Your task to perform on an android device: Empty the shopping cart on walmart. Image 0: 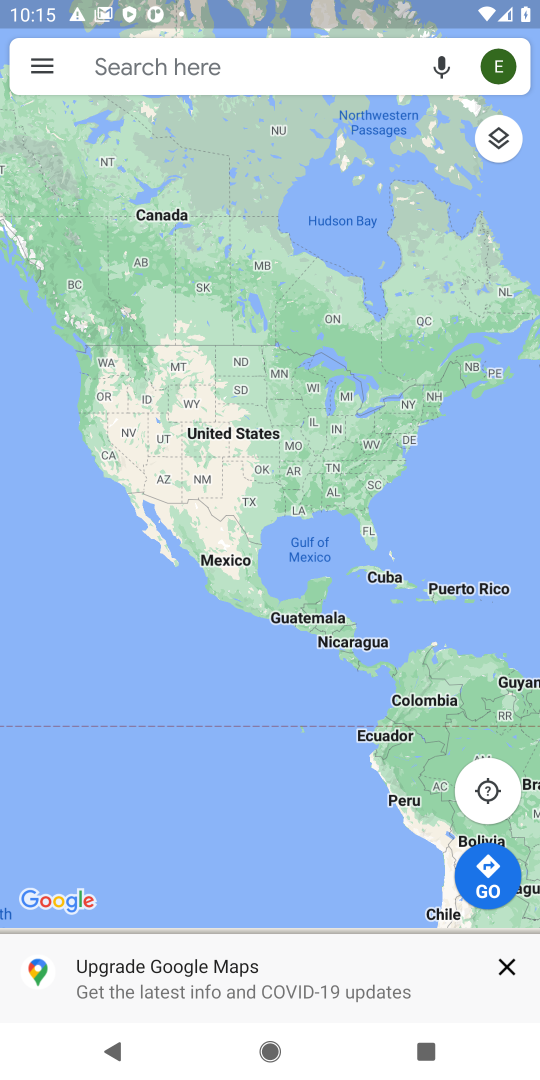
Step 0: press home button
Your task to perform on an android device: Empty the shopping cart on walmart. Image 1: 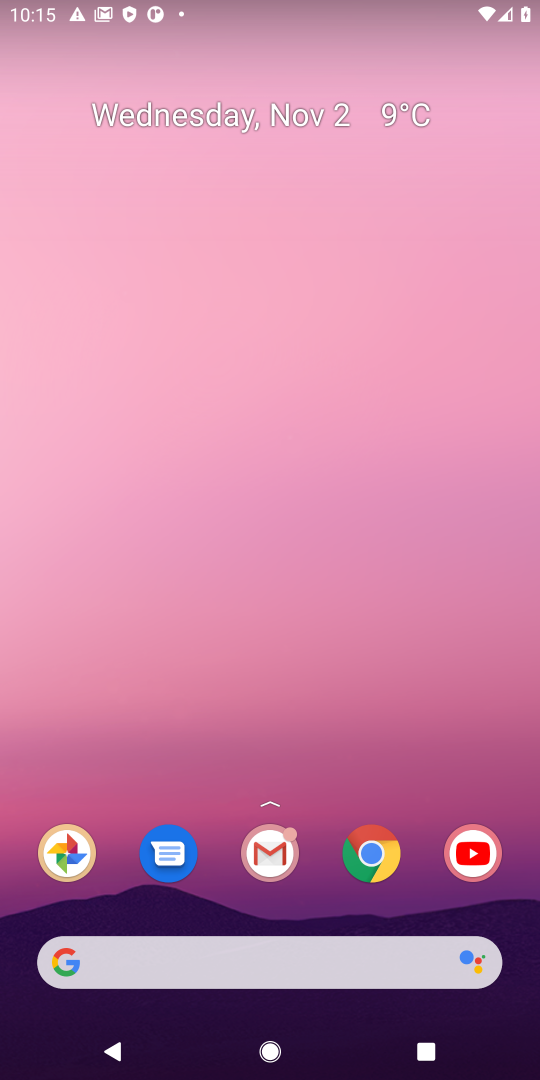
Step 1: click (369, 852)
Your task to perform on an android device: Empty the shopping cart on walmart. Image 2: 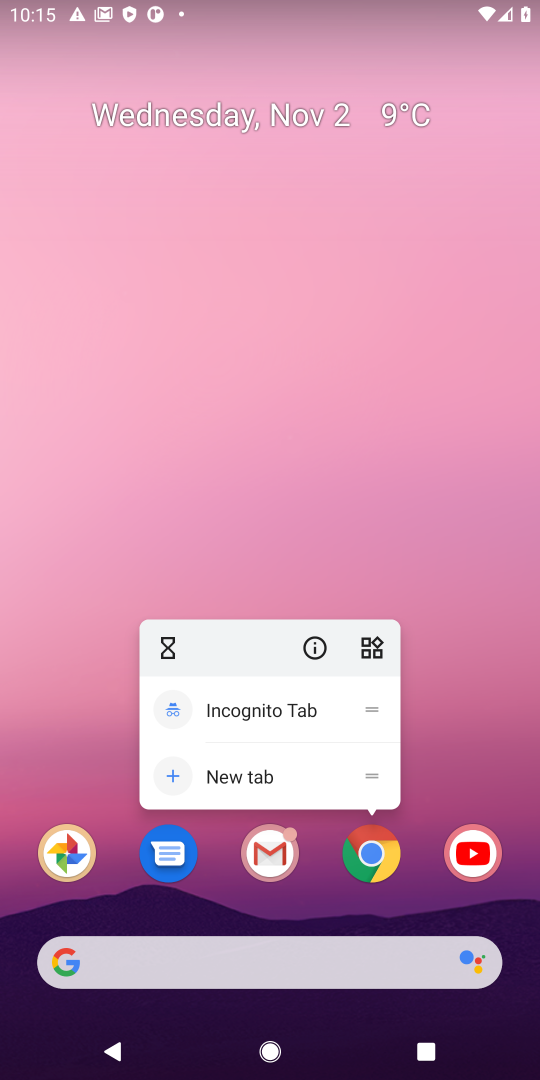
Step 2: click (369, 852)
Your task to perform on an android device: Empty the shopping cart on walmart. Image 3: 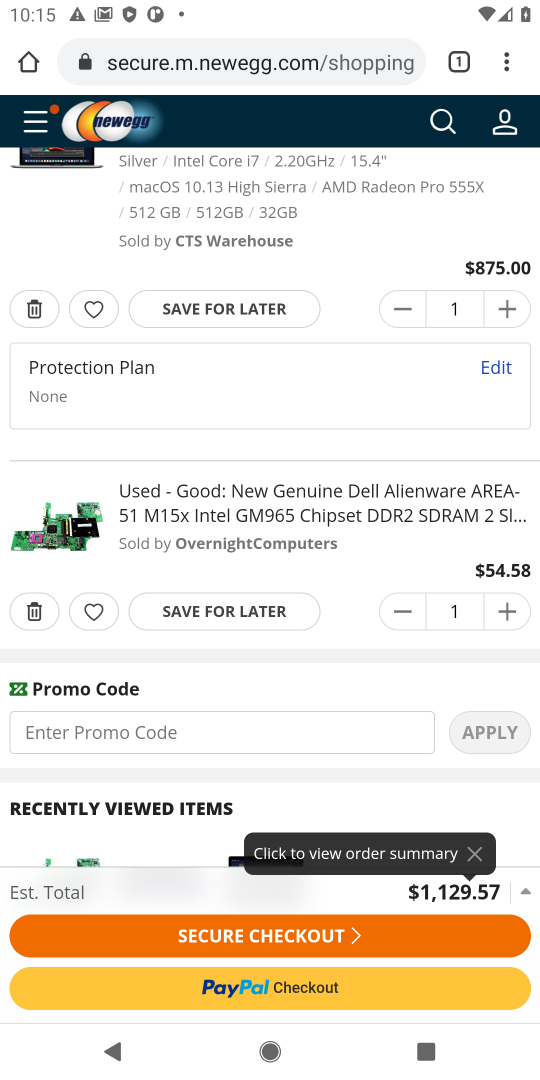
Step 3: click (278, 57)
Your task to perform on an android device: Empty the shopping cart on walmart. Image 4: 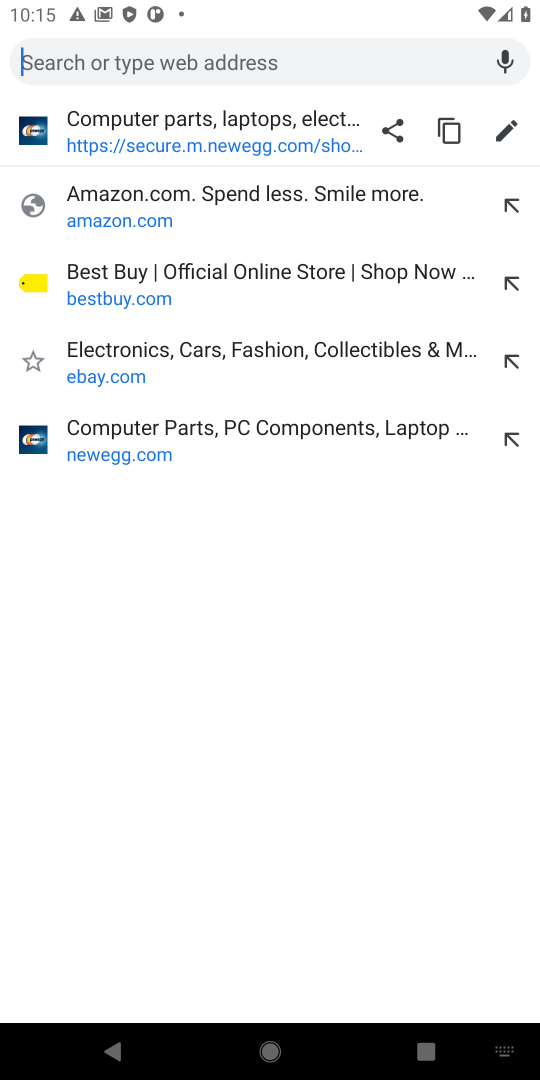
Step 4: type " walmart"
Your task to perform on an android device: Empty the shopping cart on walmart. Image 5: 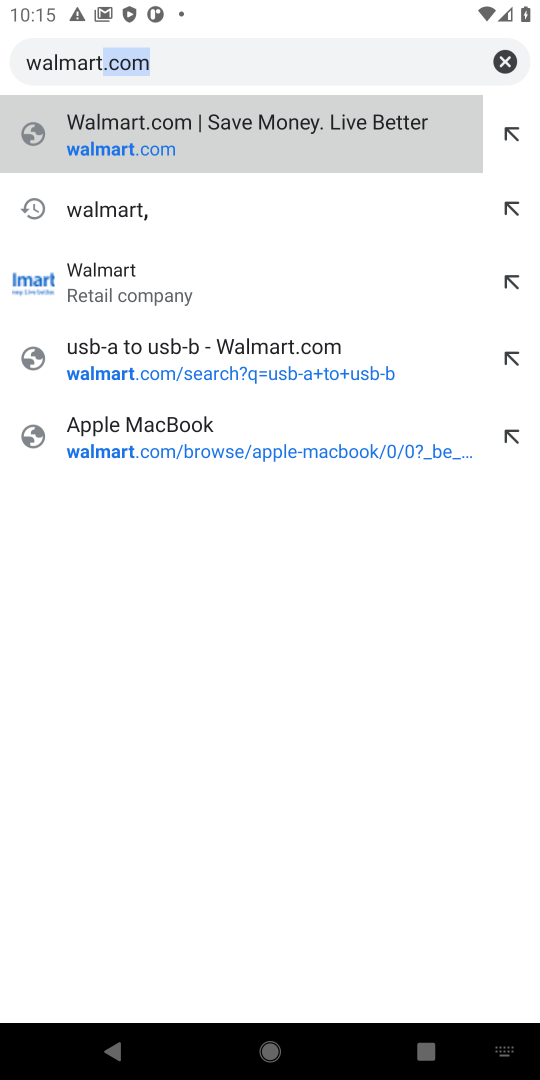
Step 5: press enter
Your task to perform on an android device: Empty the shopping cart on walmart. Image 6: 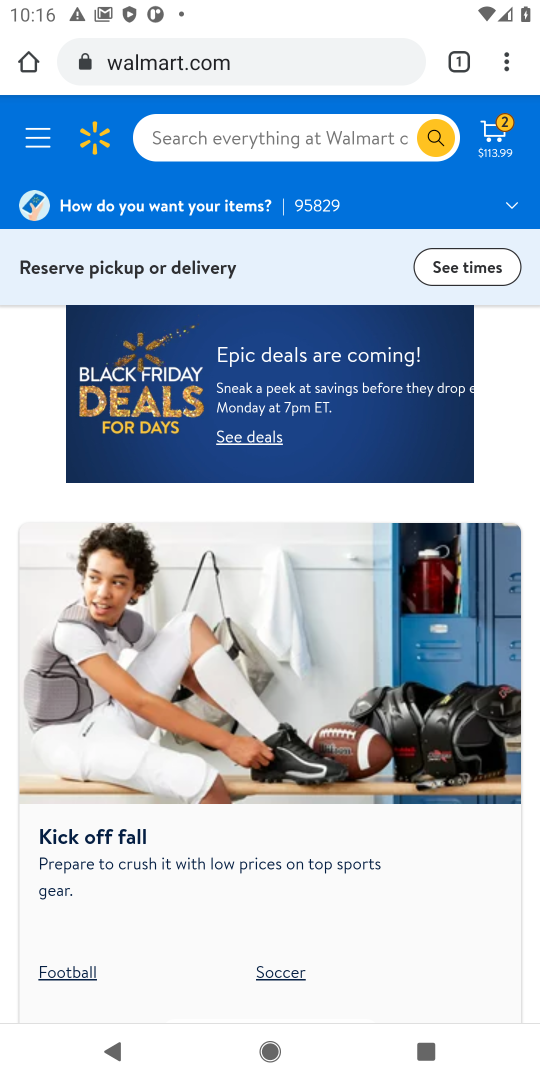
Step 6: click (502, 144)
Your task to perform on an android device: Empty the shopping cart on walmart. Image 7: 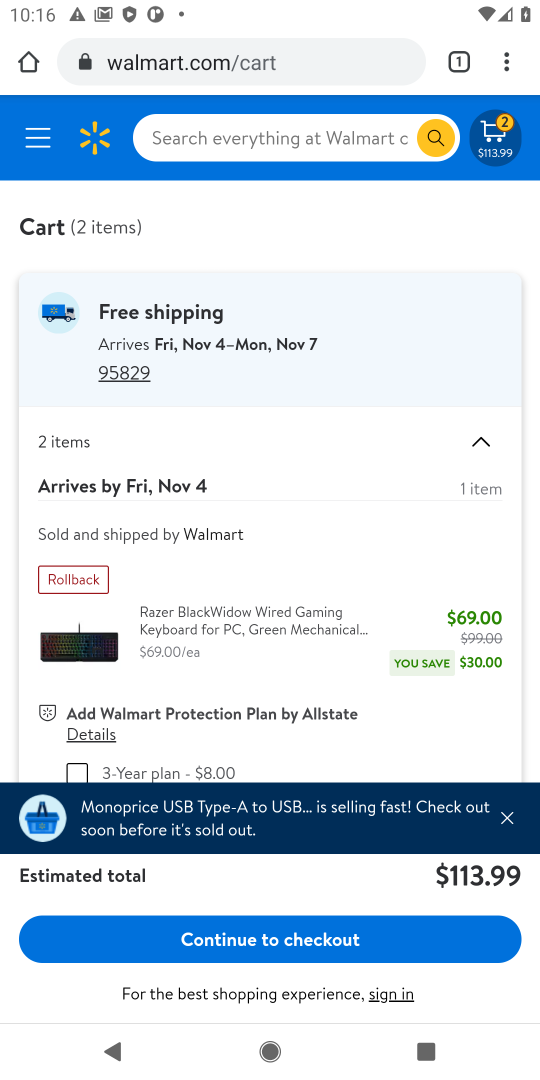
Step 7: drag from (281, 566) to (366, 337)
Your task to perform on an android device: Empty the shopping cart on walmart. Image 8: 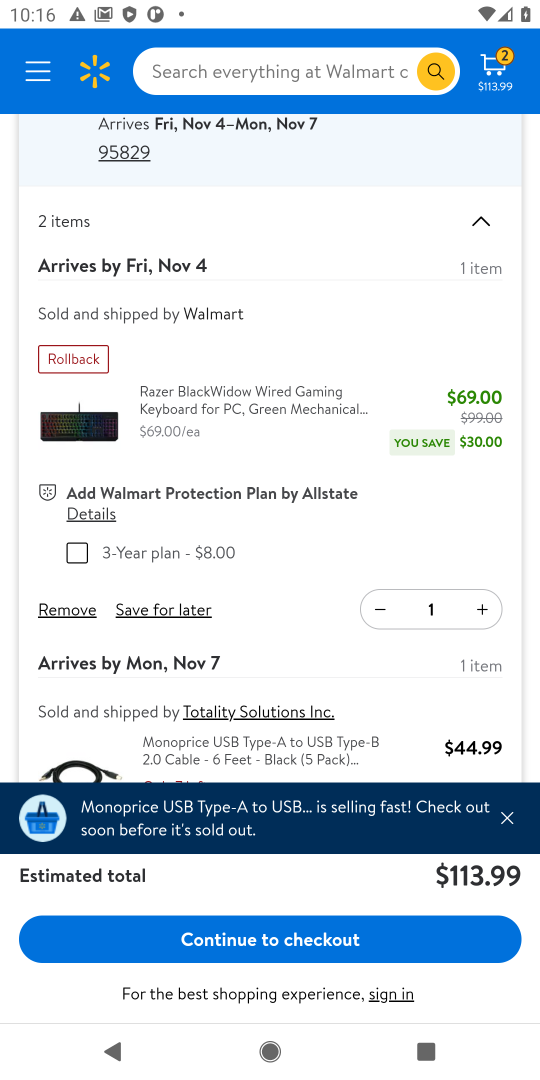
Step 8: drag from (307, 391) to (319, 727)
Your task to perform on an android device: Empty the shopping cart on walmart. Image 9: 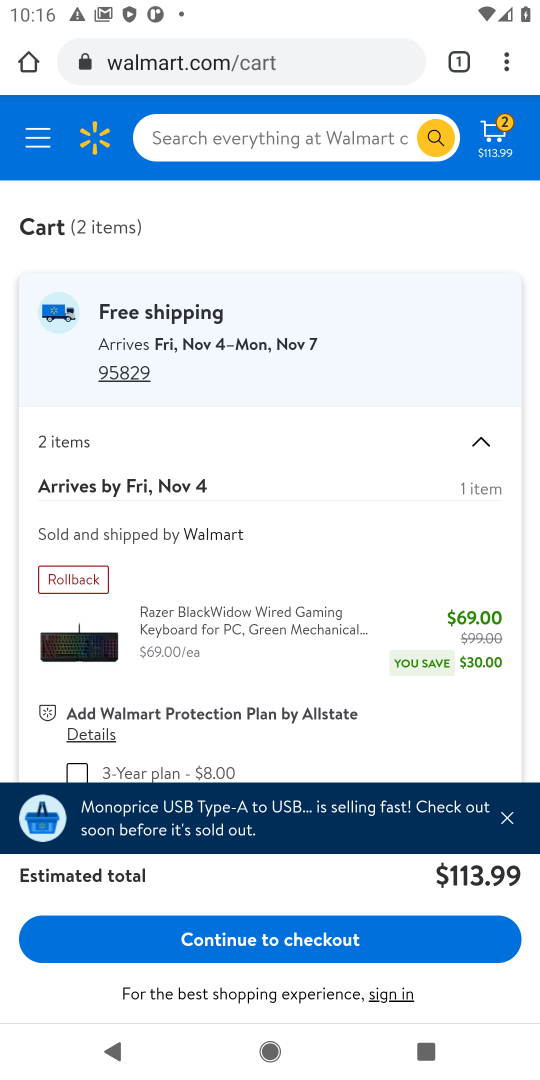
Step 9: drag from (279, 737) to (309, 562)
Your task to perform on an android device: Empty the shopping cart on walmart. Image 10: 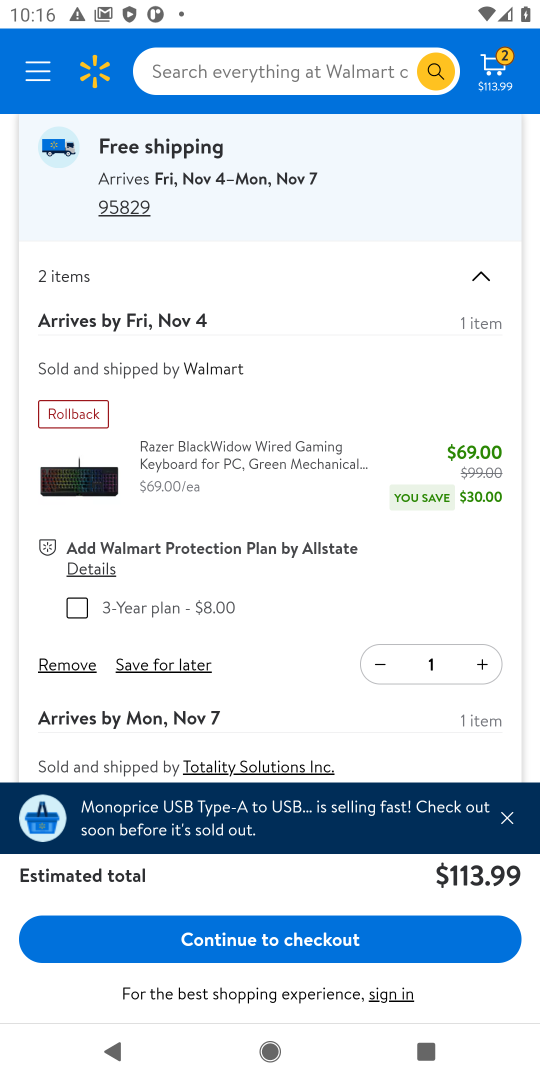
Step 10: click (72, 662)
Your task to perform on an android device: Empty the shopping cart on walmart. Image 11: 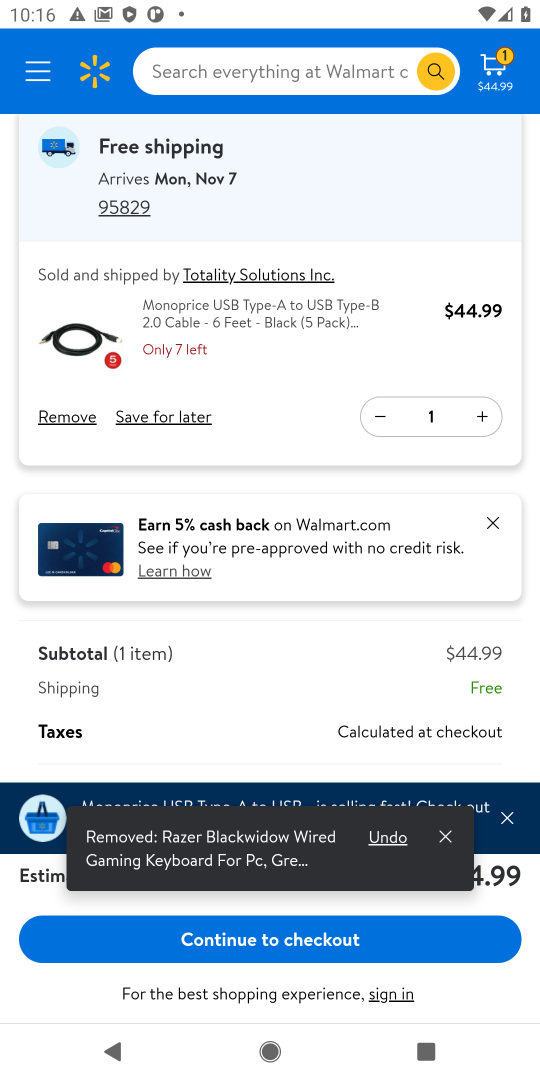
Step 11: click (67, 416)
Your task to perform on an android device: Empty the shopping cart on walmart. Image 12: 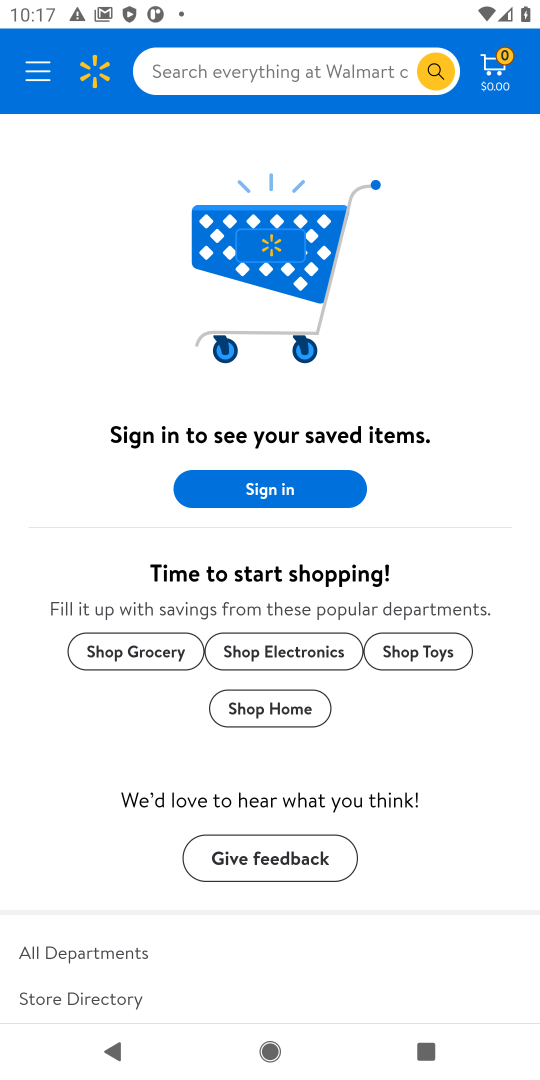
Step 12: task complete